Your task to perform on an android device: allow cookies in the chrome app Image 0: 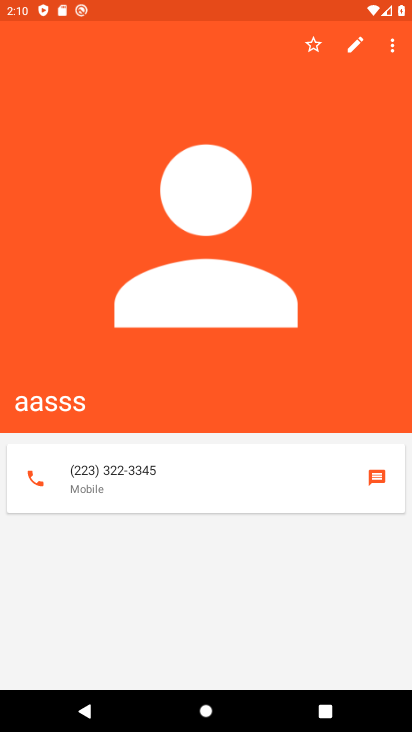
Step 0: press home button
Your task to perform on an android device: allow cookies in the chrome app Image 1: 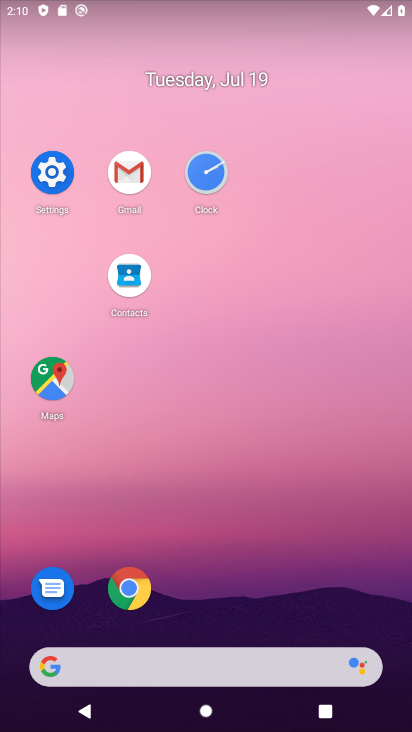
Step 1: click (130, 582)
Your task to perform on an android device: allow cookies in the chrome app Image 2: 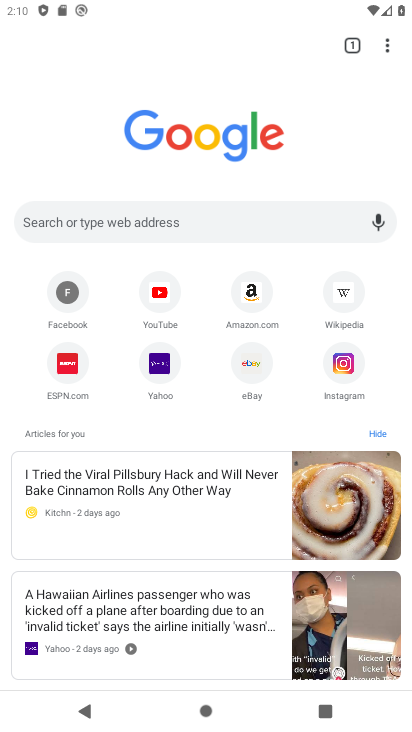
Step 2: click (391, 53)
Your task to perform on an android device: allow cookies in the chrome app Image 3: 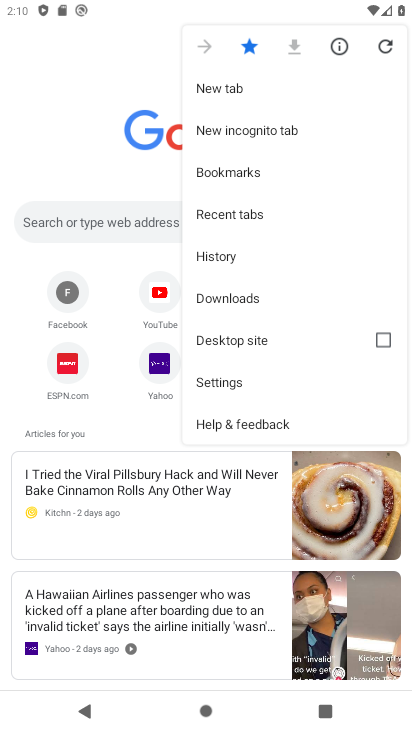
Step 3: click (243, 379)
Your task to perform on an android device: allow cookies in the chrome app Image 4: 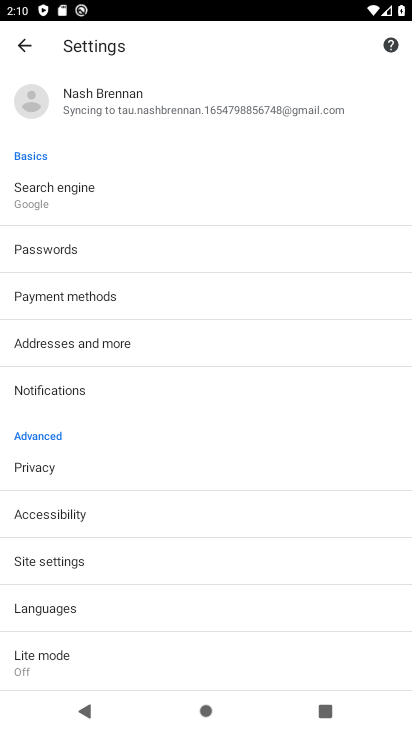
Step 4: click (116, 571)
Your task to perform on an android device: allow cookies in the chrome app Image 5: 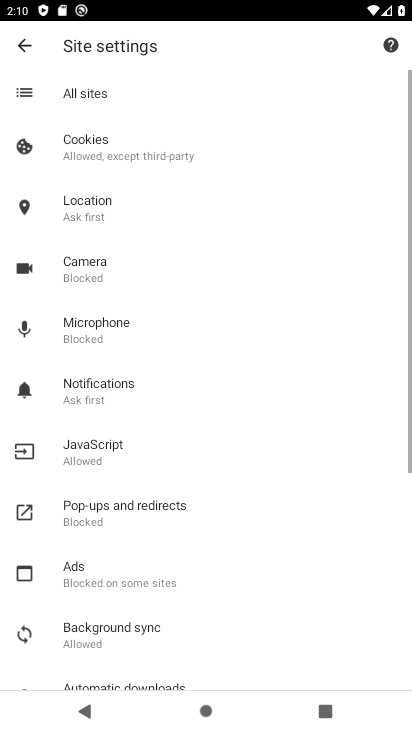
Step 5: click (160, 153)
Your task to perform on an android device: allow cookies in the chrome app Image 6: 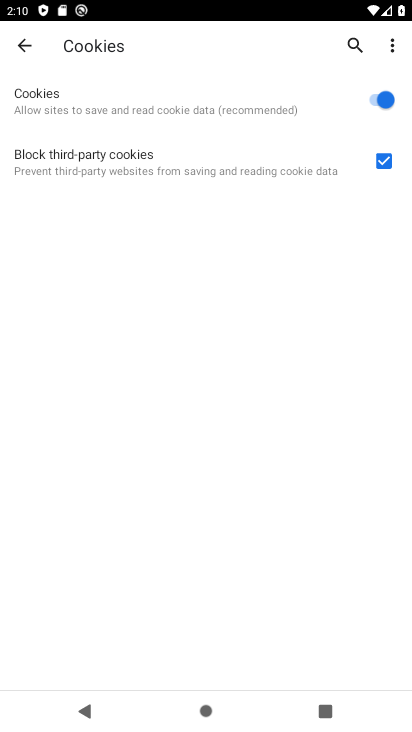
Step 6: task complete